Your task to perform on an android device: Do I have any events this weekend? Image 0: 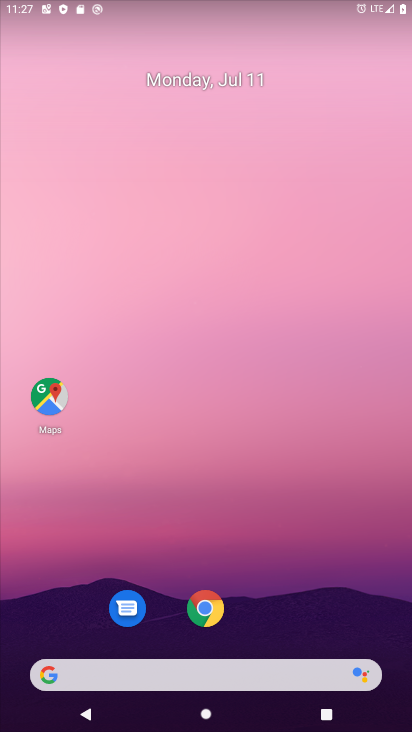
Step 0: drag from (43, 696) to (262, 0)
Your task to perform on an android device: Do I have any events this weekend? Image 1: 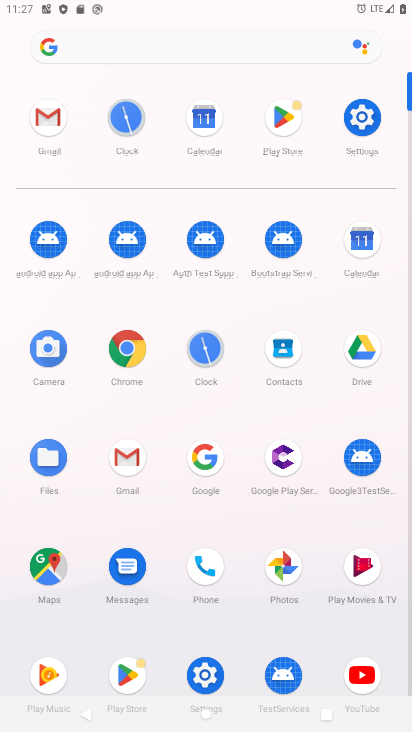
Step 1: click (355, 245)
Your task to perform on an android device: Do I have any events this weekend? Image 2: 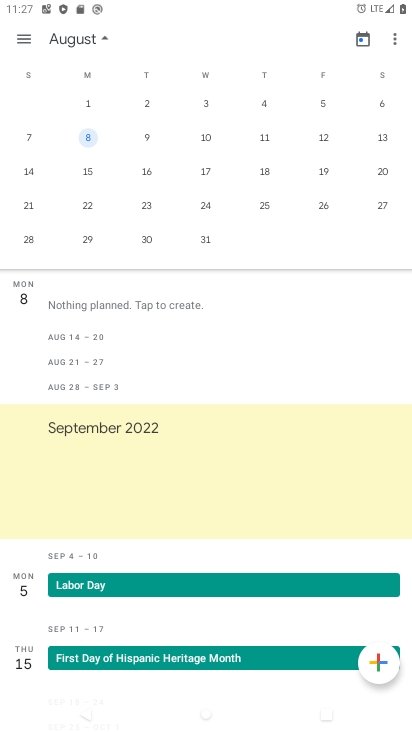
Step 2: click (25, 49)
Your task to perform on an android device: Do I have any events this weekend? Image 3: 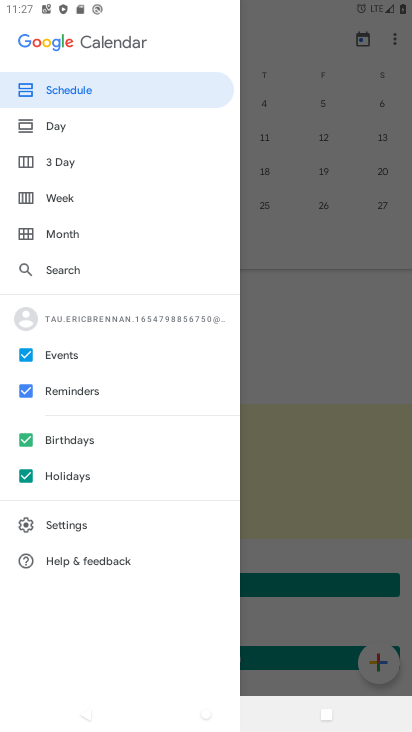
Step 3: click (284, 317)
Your task to perform on an android device: Do I have any events this weekend? Image 4: 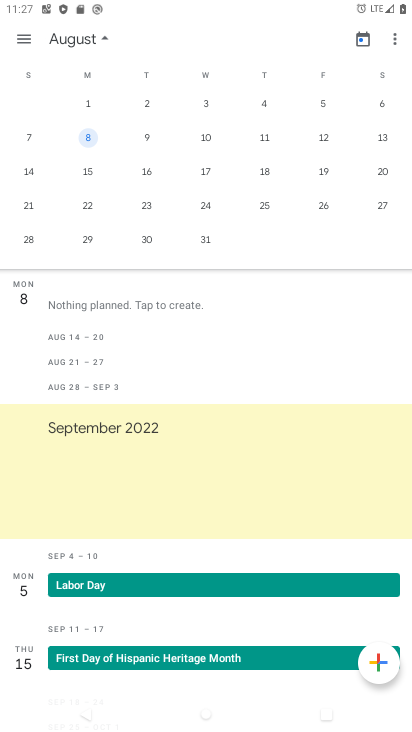
Step 4: task complete